Your task to perform on an android device: turn on data saver in the chrome app Image 0: 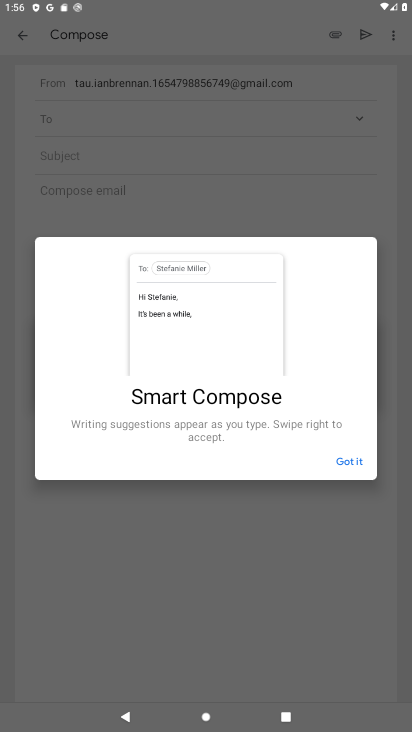
Step 0: press home button
Your task to perform on an android device: turn on data saver in the chrome app Image 1: 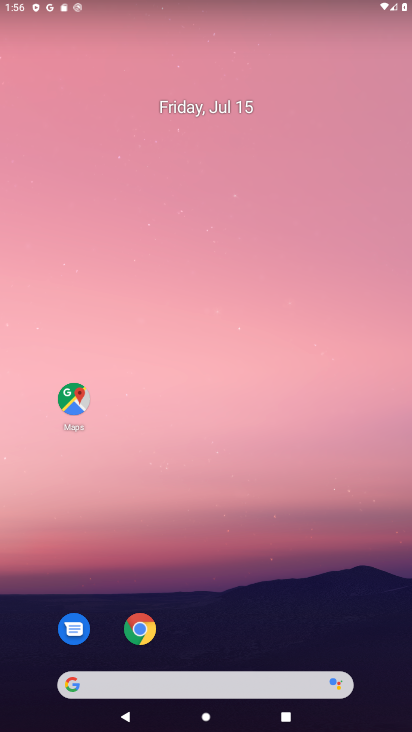
Step 1: click (151, 630)
Your task to perform on an android device: turn on data saver in the chrome app Image 2: 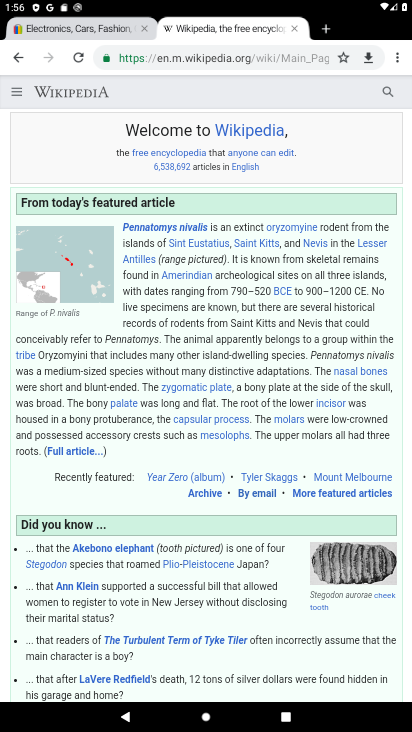
Step 2: click (396, 57)
Your task to perform on an android device: turn on data saver in the chrome app Image 3: 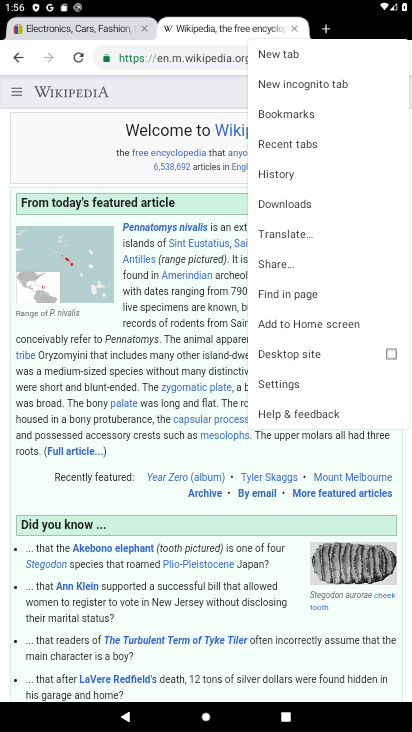
Step 3: click (284, 384)
Your task to perform on an android device: turn on data saver in the chrome app Image 4: 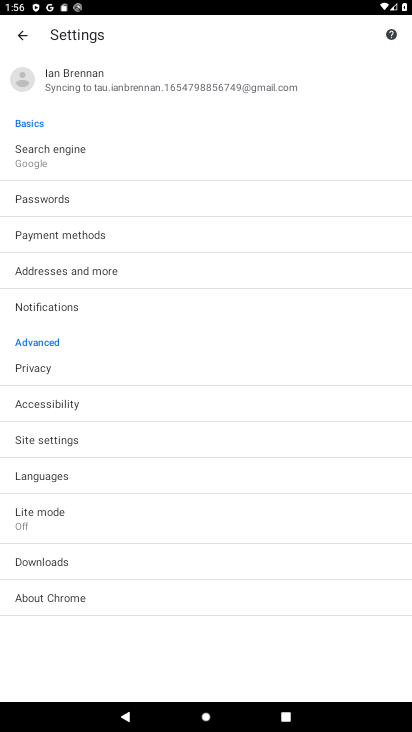
Step 4: click (27, 517)
Your task to perform on an android device: turn on data saver in the chrome app Image 5: 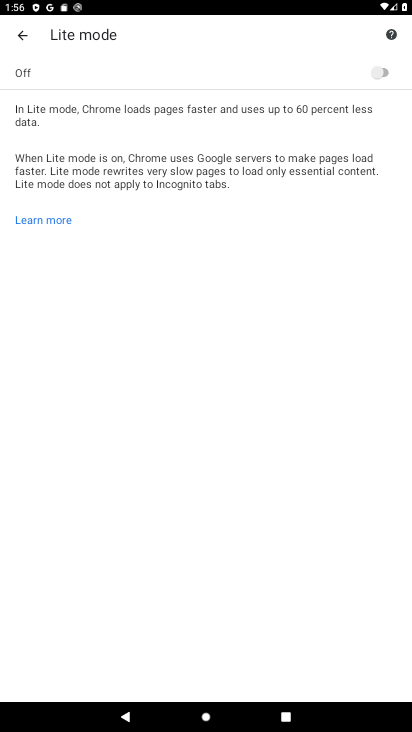
Step 5: click (381, 70)
Your task to perform on an android device: turn on data saver in the chrome app Image 6: 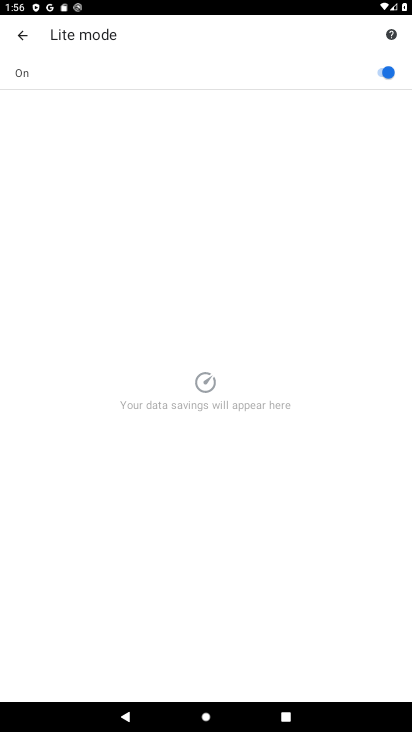
Step 6: task complete